Your task to perform on an android device: Open the Play Movies app and select the watchlist tab. Image 0: 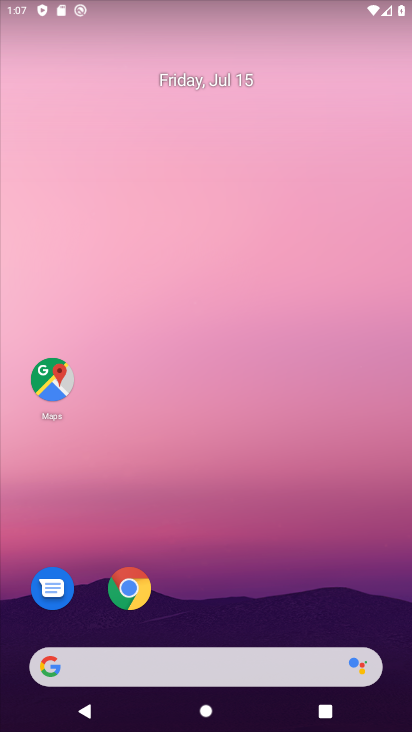
Step 0: drag from (261, 553) to (331, 37)
Your task to perform on an android device: Open the Play Movies app and select the watchlist tab. Image 1: 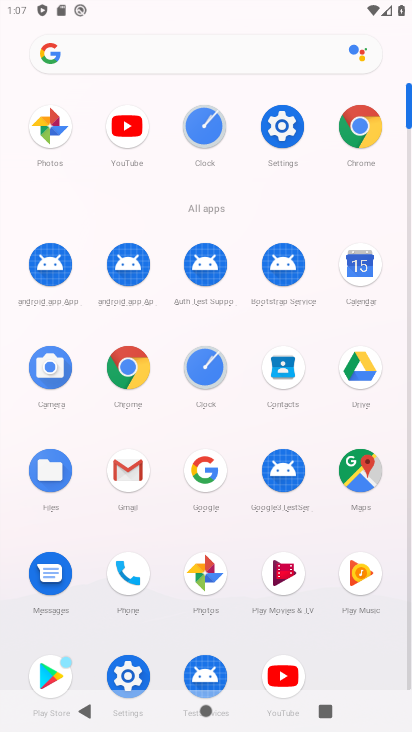
Step 1: click (286, 572)
Your task to perform on an android device: Open the Play Movies app and select the watchlist tab. Image 2: 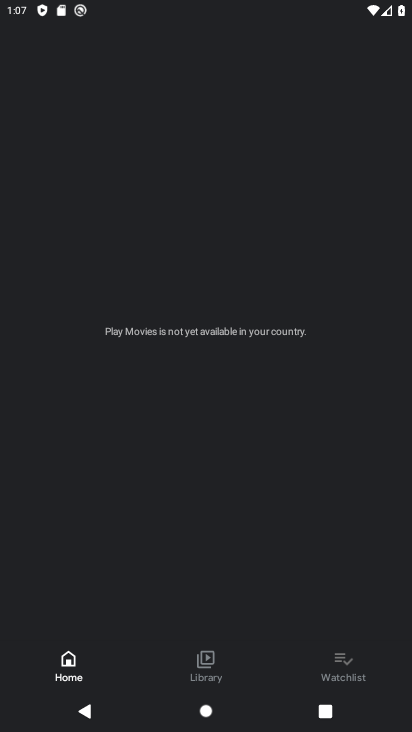
Step 2: click (338, 656)
Your task to perform on an android device: Open the Play Movies app and select the watchlist tab. Image 3: 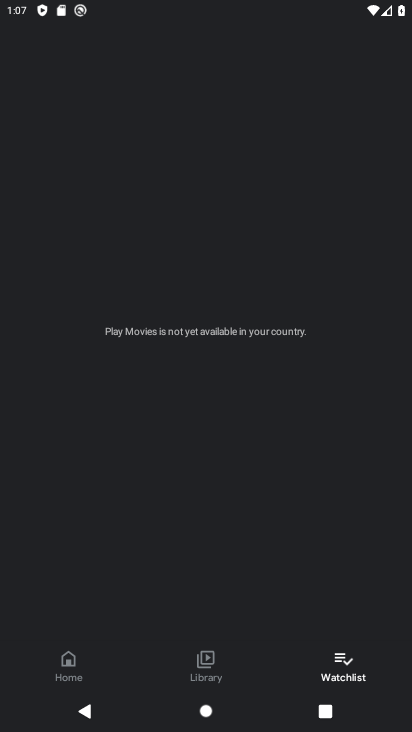
Step 3: task complete